Your task to perform on an android device: turn on location history Image 0: 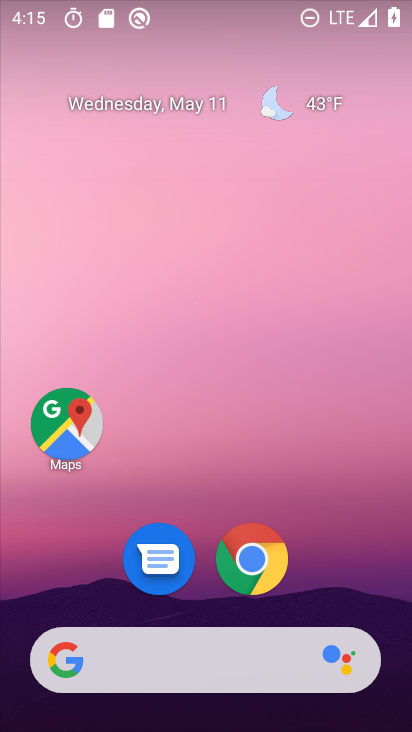
Step 0: drag from (338, 550) to (249, 91)
Your task to perform on an android device: turn on location history Image 1: 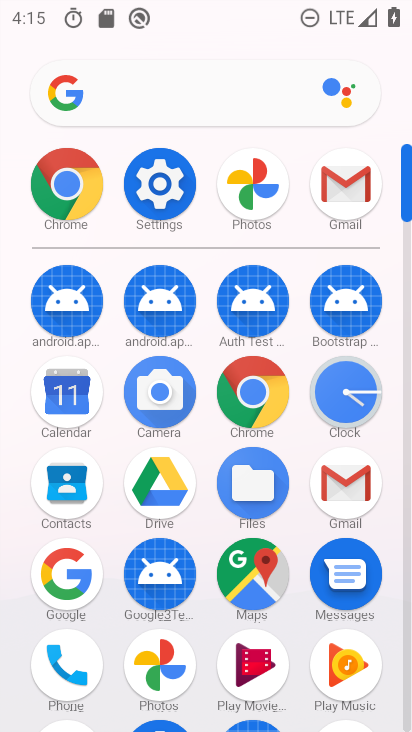
Step 1: click (164, 192)
Your task to perform on an android device: turn on location history Image 2: 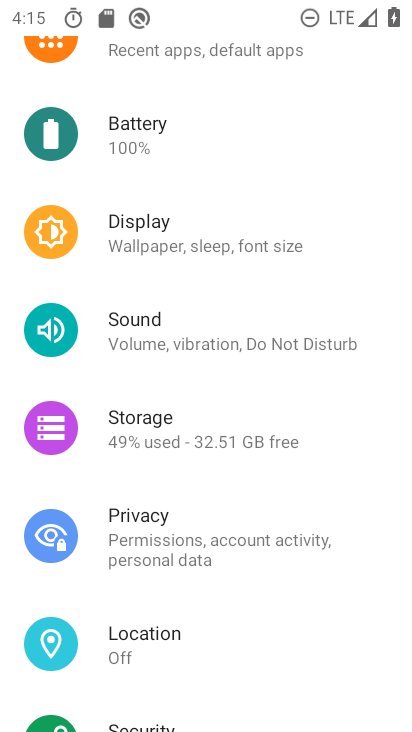
Step 2: click (185, 650)
Your task to perform on an android device: turn on location history Image 3: 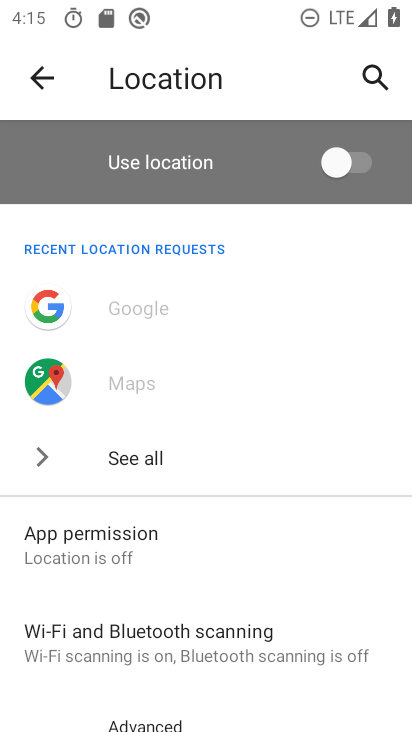
Step 3: drag from (207, 597) to (258, 246)
Your task to perform on an android device: turn on location history Image 4: 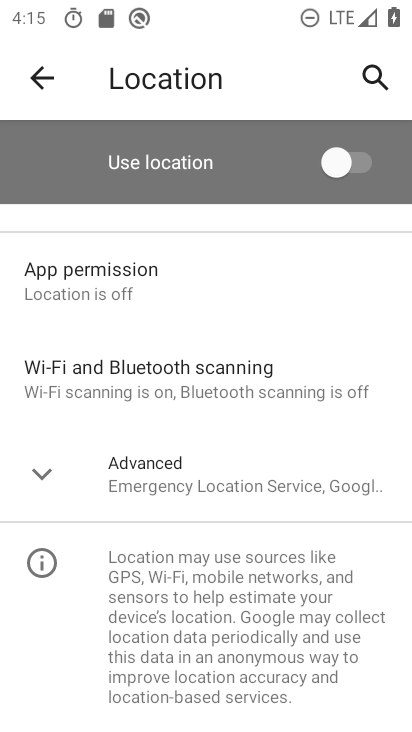
Step 4: click (192, 476)
Your task to perform on an android device: turn on location history Image 5: 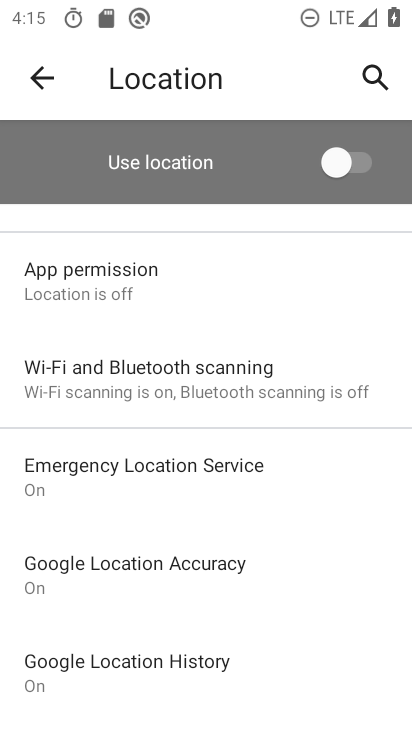
Step 5: click (207, 661)
Your task to perform on an android device: turn on location history Image 6: 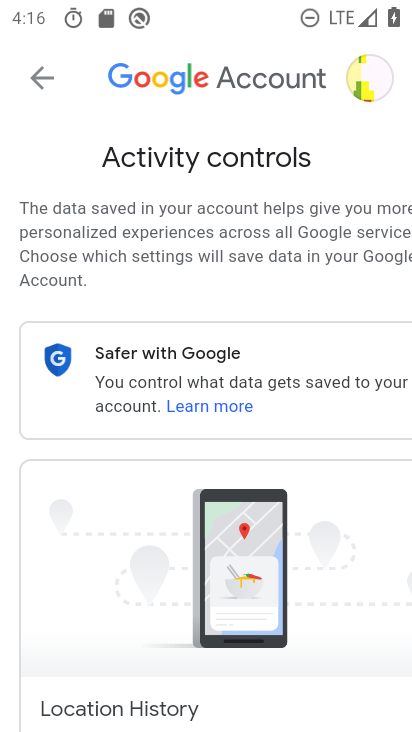
Step 6: task complete